Your task to perform on an android device: Search for sushi restaurants on Maps Image 0: 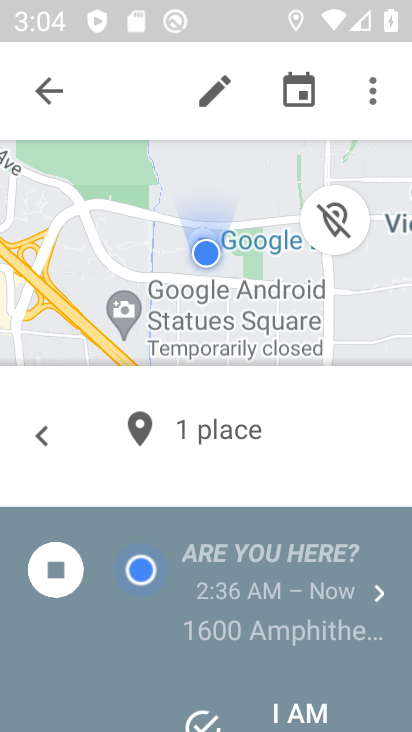
Step 0: press home button
Your task to perform on an android device: Search for sushi restaurants on Maps Image 1: 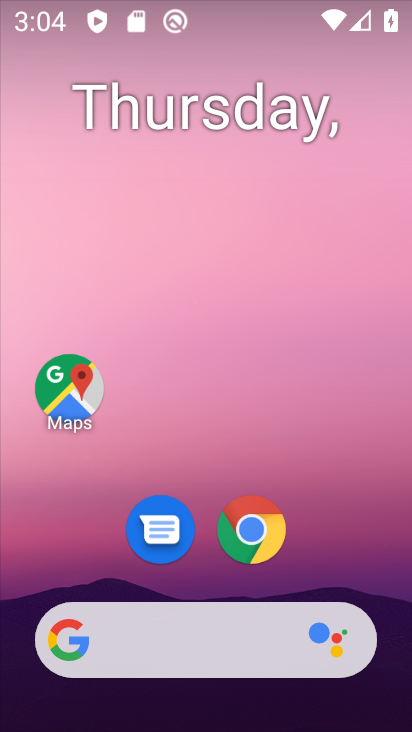
Step 1: click (69, 388)
Your task to perform on an android device: Search for sushi restaurants on Maps Image 2: 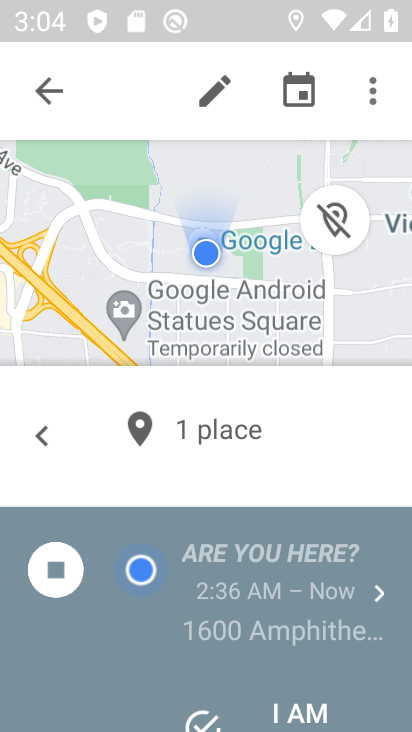
Step 2: press back button
Your task to perform on an android device: Search for sushi restaurants on Maps Image 3: 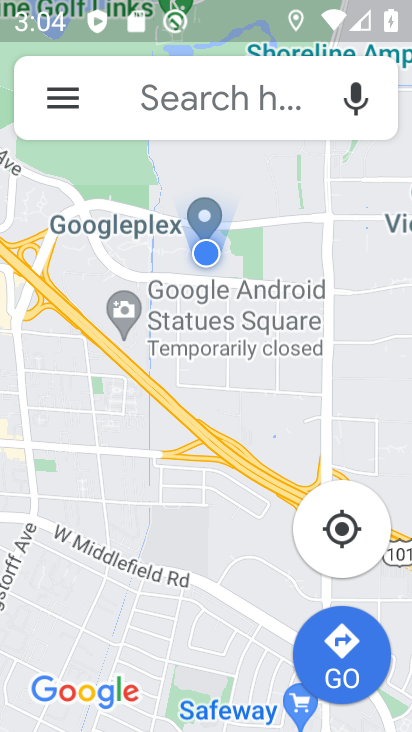
Step 3: click (237, 100)
Your task to perform on an android device: Search for sushi restaurants on Maps Image 4: 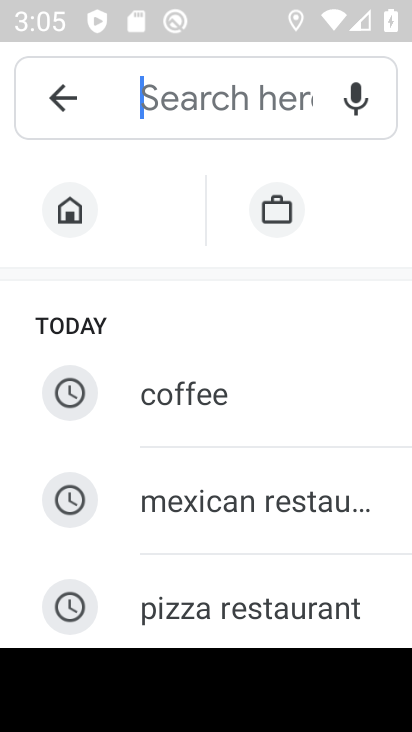
Step 4: type "sushi restaurants"
Your task to perform on an android device: Search for sushi restaurants on Maps Image 5: 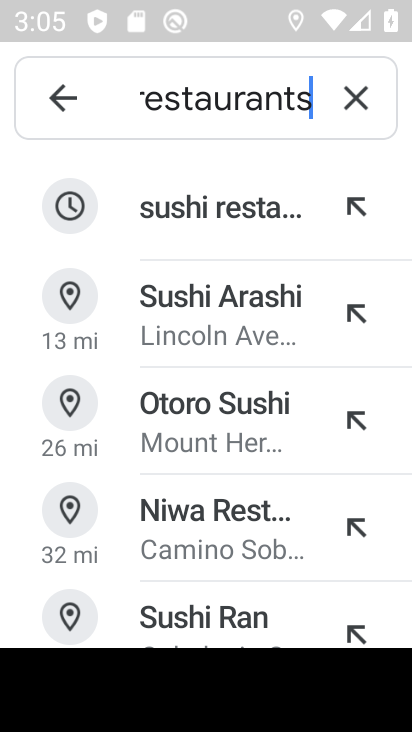
Step 5: click (226, 217)
Your task to perform on an android device: Search for sushi restaurants on Maps Image 6: 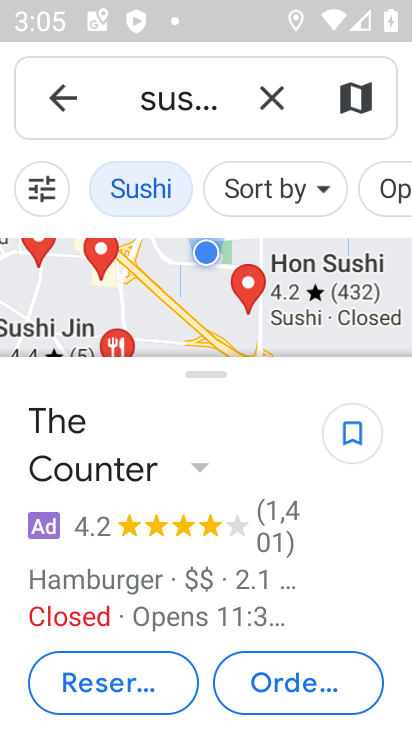
Step 6: task complete